Your task to perform on an android device: turn off improve location accuracy Image 0: 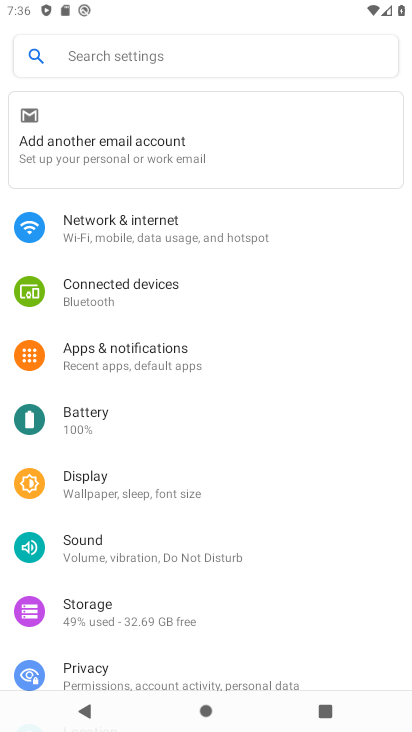
Step 0: drag from (140, 484) to (135, 294)
Your task to perform on an android device: turn off improve location accuracy Image 1: 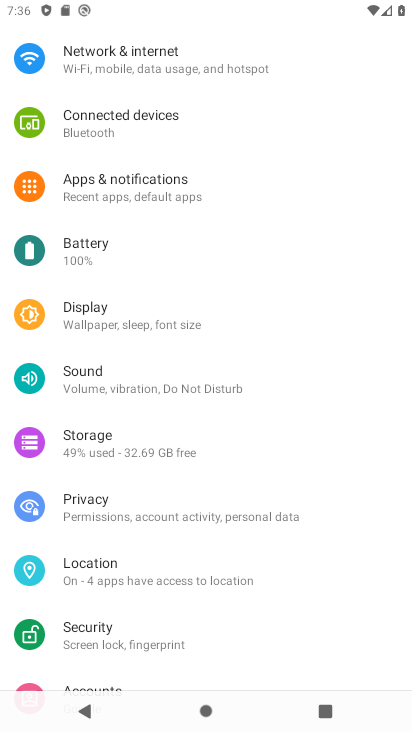
Step 1: click (113, 558)
Your task to perform on an android device: turn off improve location accuracy Image 2: 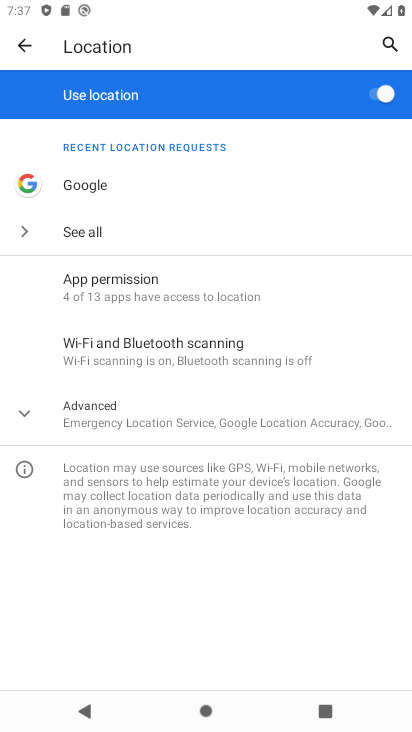
Step 2: click (165, 437)
Your task to perform on an android device: turn off improve location accuracy Image 3: 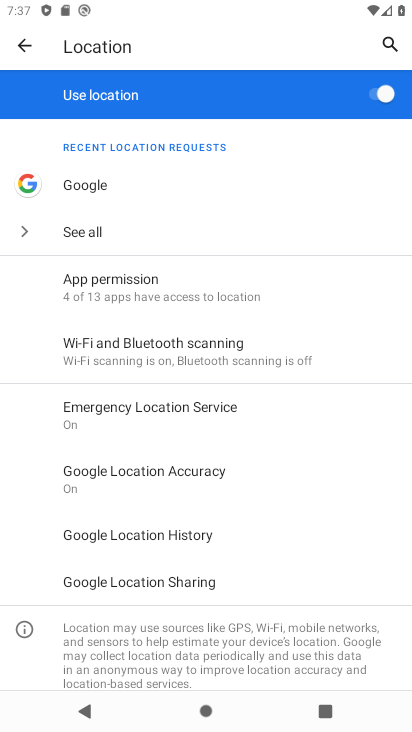
Step 3: click (177, 464)
Your task to perform on an android device: turn off improve location accuracy Image 4: 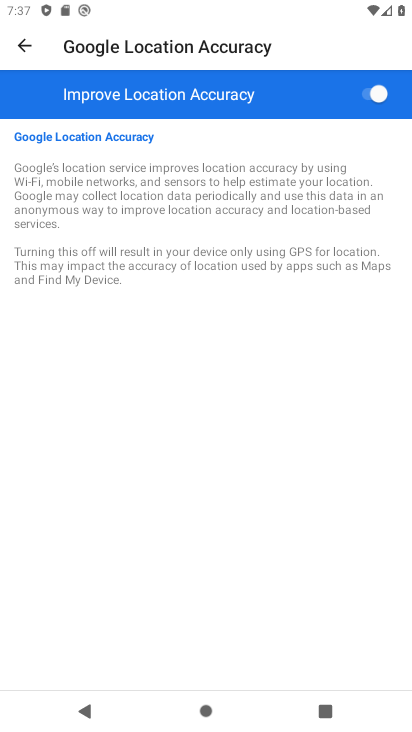
Step 4: click (362, 85)
Your task to perform on an android device: turn off improve location accuracy Image 5: 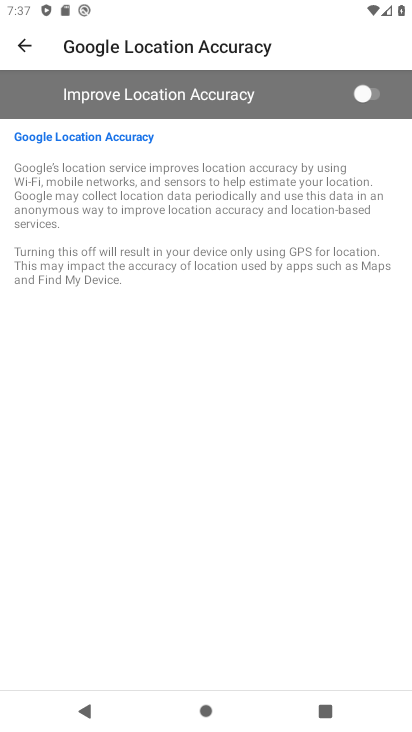
Step 5: task complete